Your task to perform on an android device: install app "Duolingo: language lessons" Image 0: 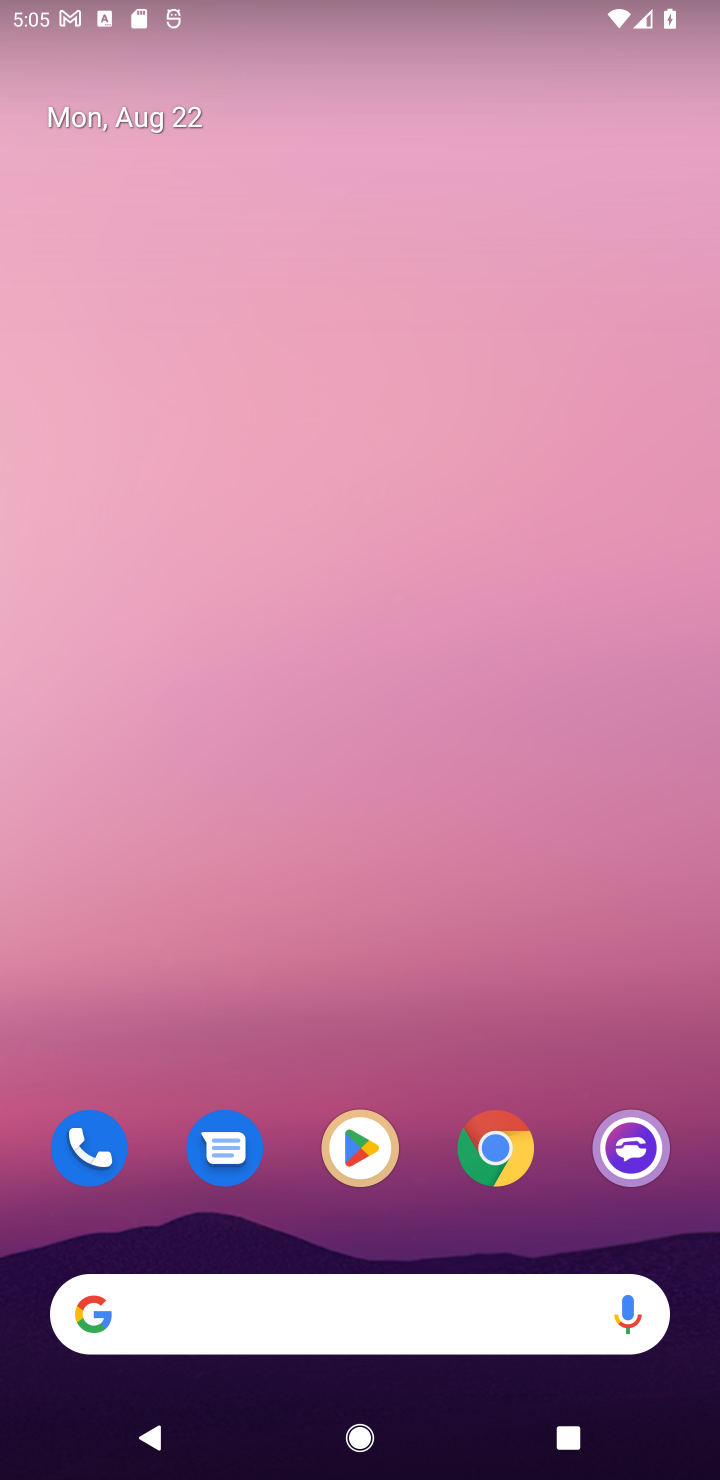
Step 0: click (361, 1151)
Your task to perform on an android device: install app "Duolingo: language lessons" Image 1: 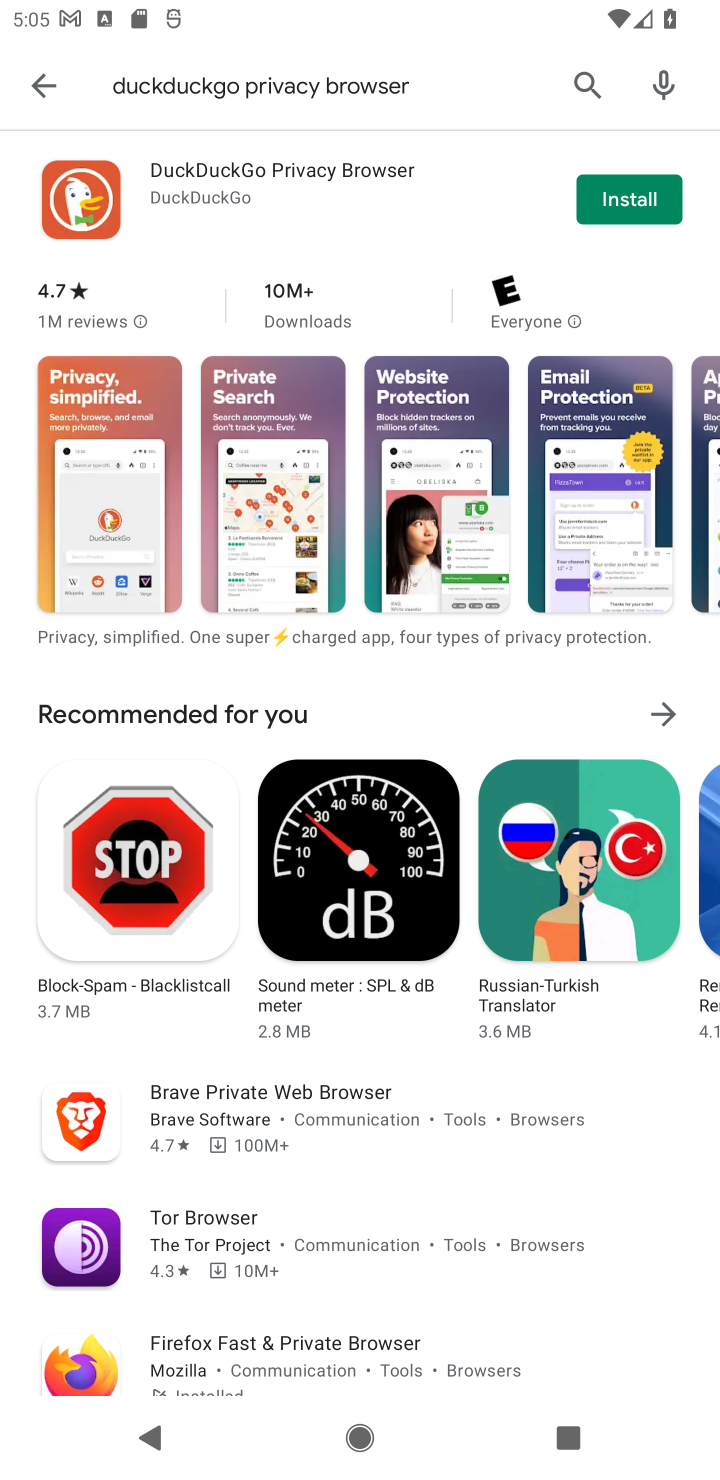
Step 1: click (585, 84)
Your task to perform on an android device: install app "Duolingo: language lessons" Image 2: 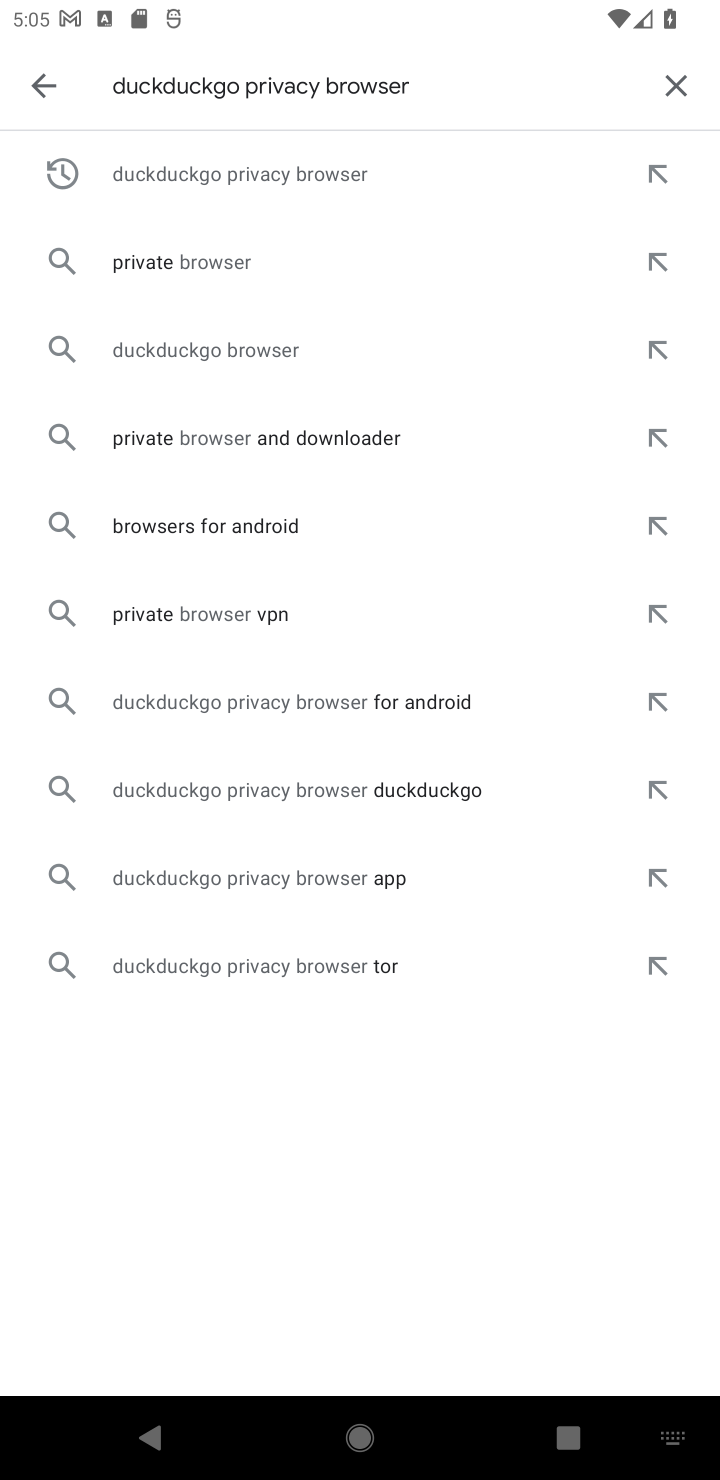
Step 2: click (668, 81)
Your task to perform on an android device: install app "Duolingo: language lessons" Image 3: 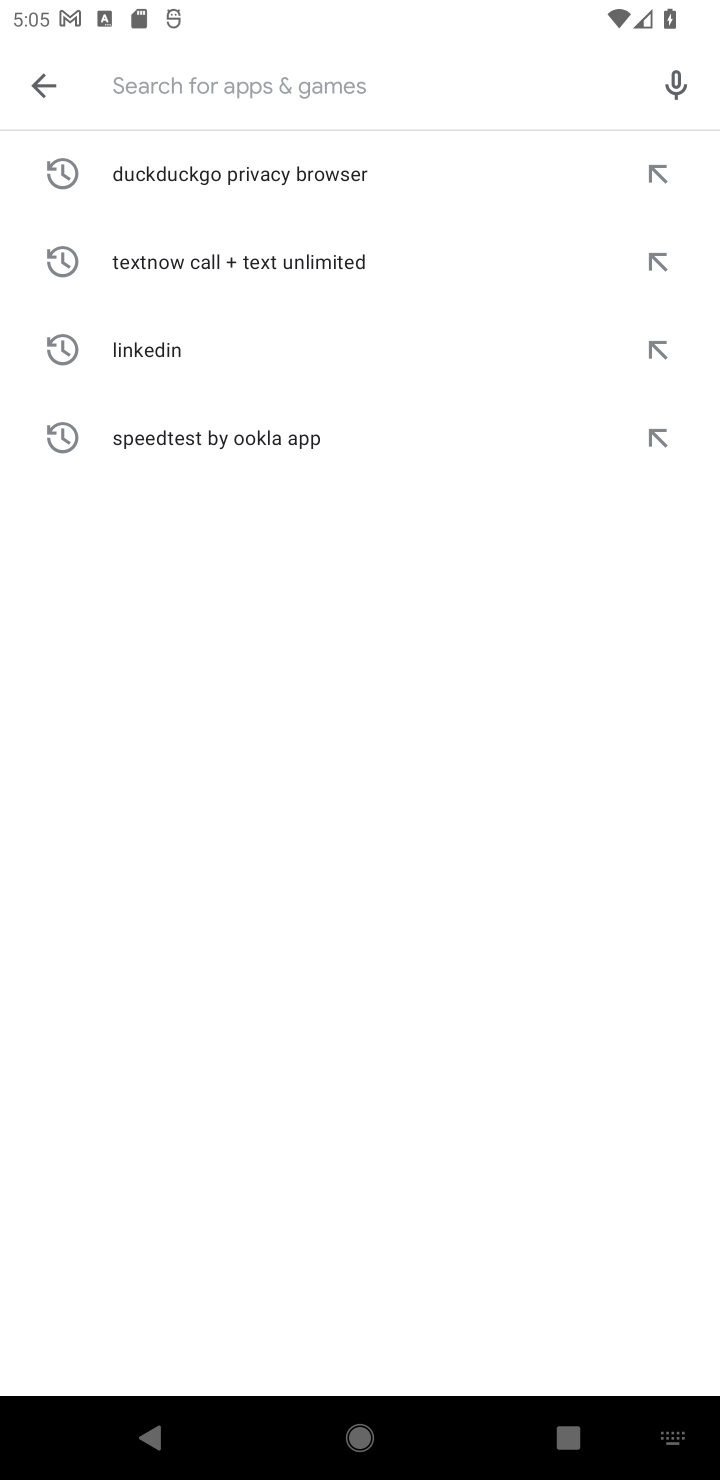
Step 3: type "Duolingo: language lessons"
Your task to perform on an android device: install app "Duolingo: language lessons" Image 4: 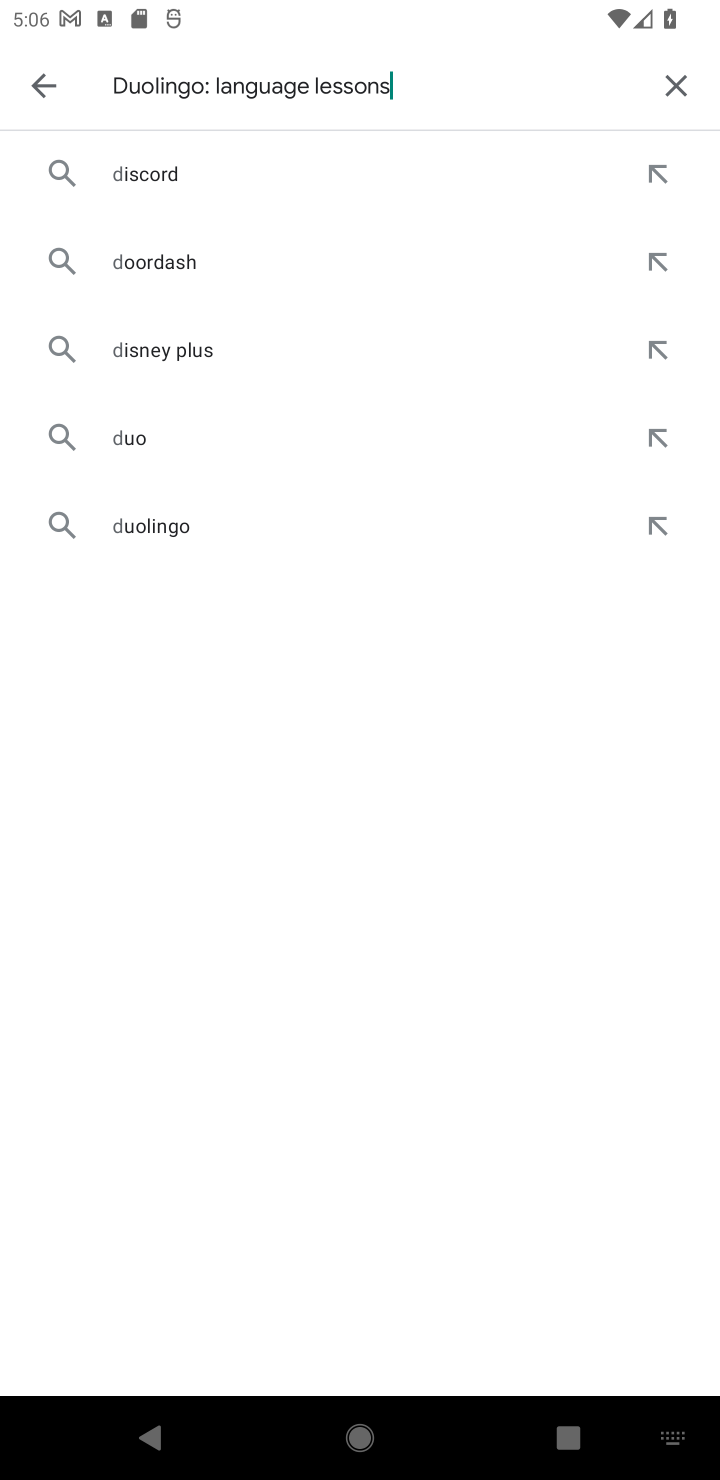
Step 4: type ""
Your task to perform on an android device: install app "Duolingo: language lessons" Image 5: 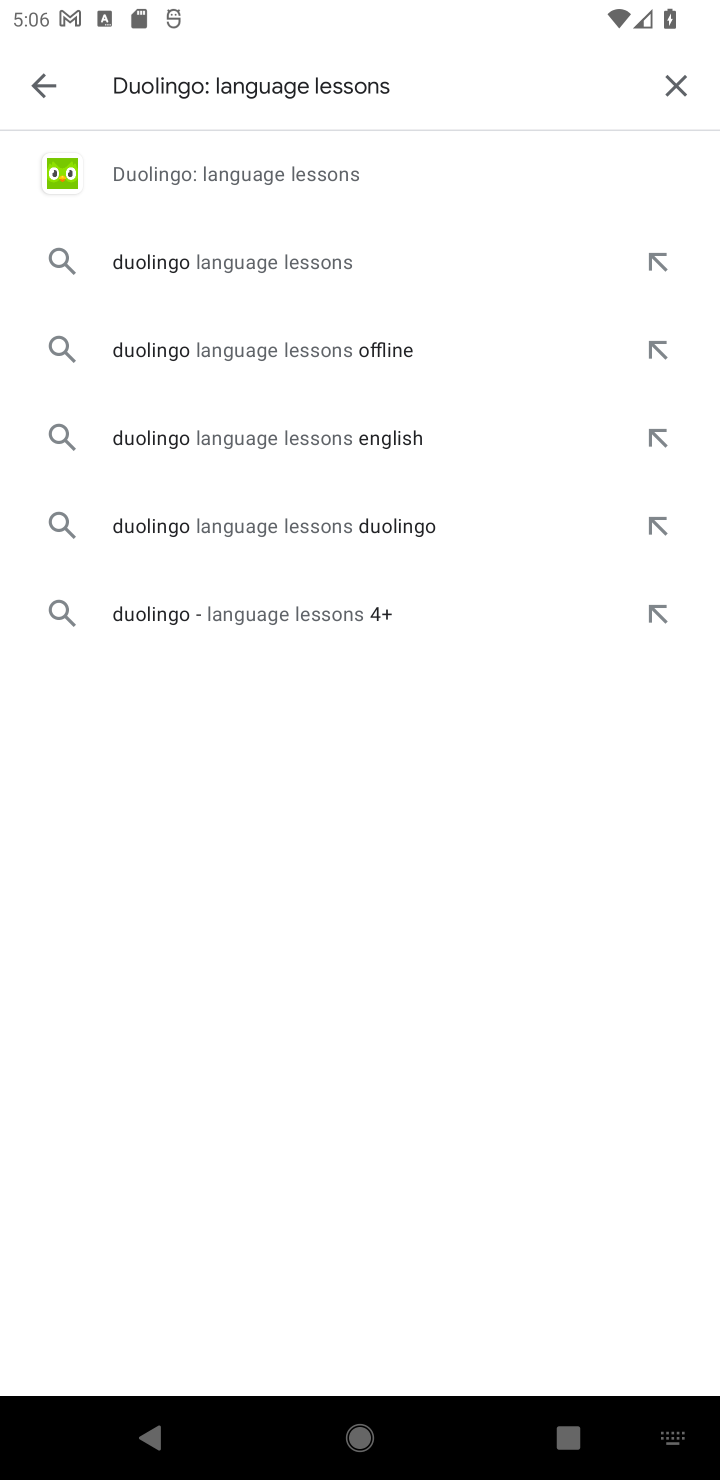
Step 5: click (200, 174)
Your task to perform on an android device: install app "Duolingo: language lessons" Image 6: 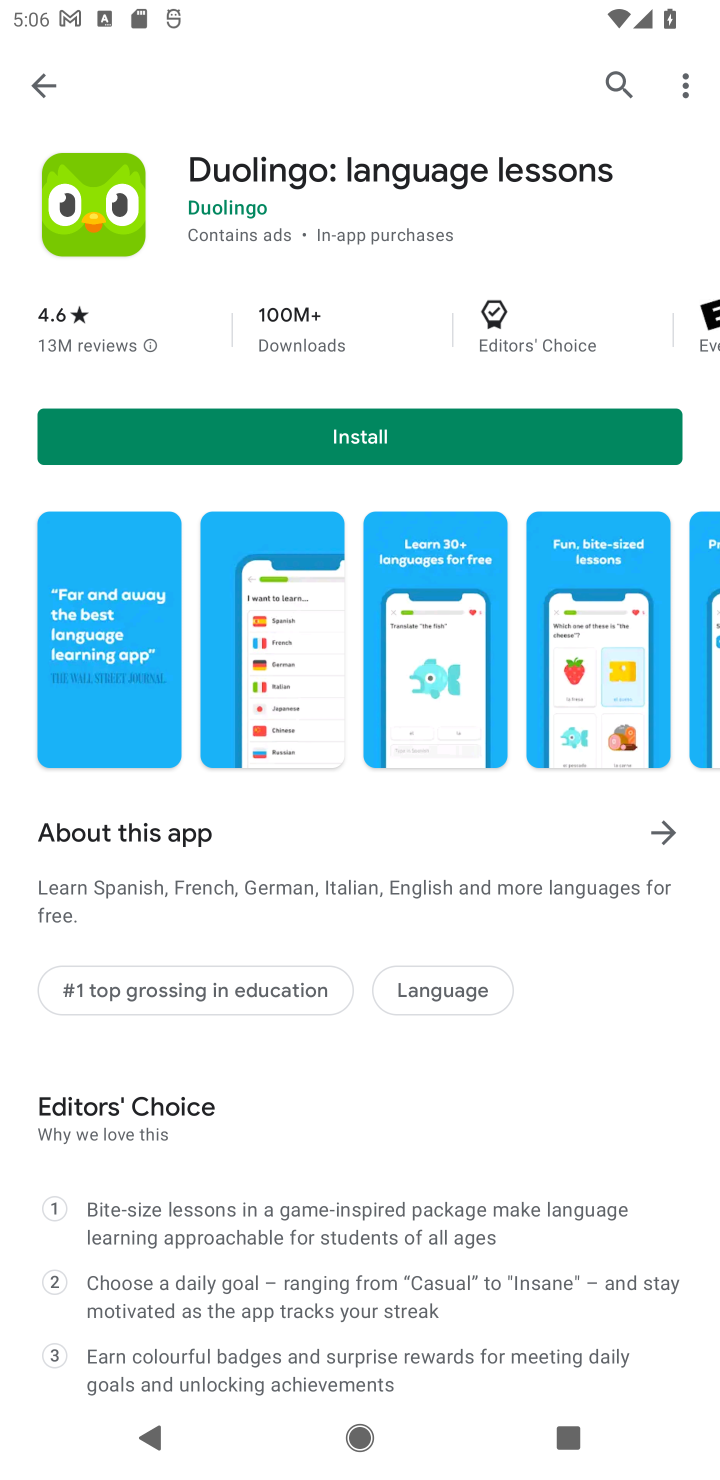
Step 6: click (389, 441)
Your task to perform on an android device: install app "Duolingo: language lessons" Image 7: 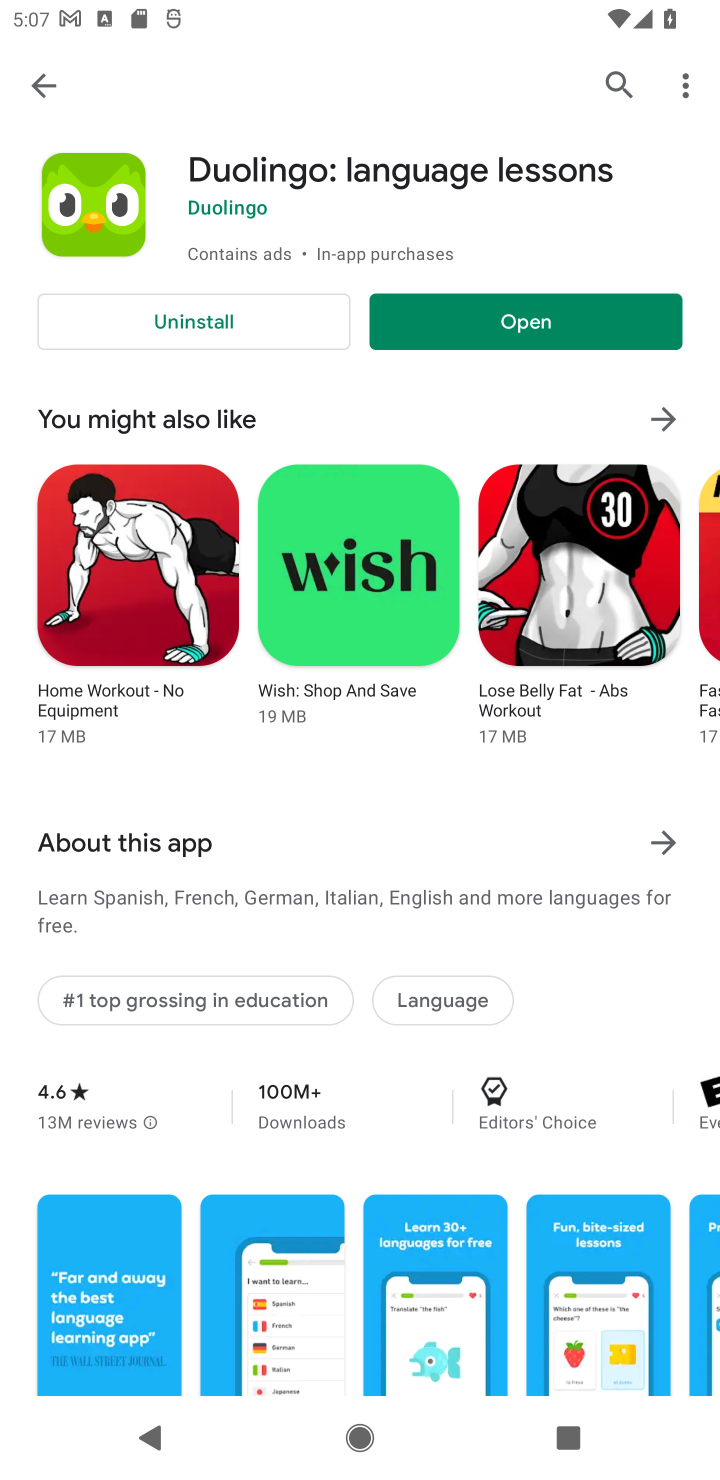
Step 7: task complete